Your task to perform on an android device: toggle location history Image 0: 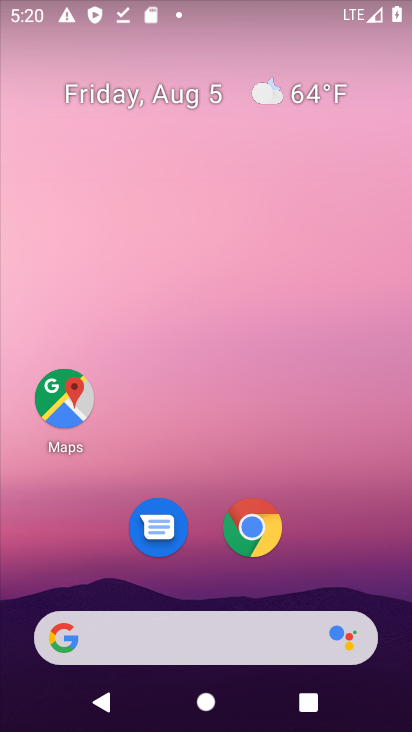
Step 0: click (203, 232)
Your task to perform on an android device: toggle location history Image 1: 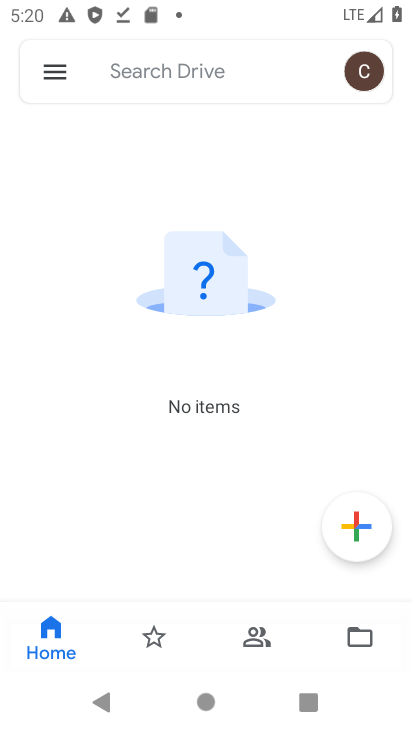
Step 1: press home button
Your task to perform on an android device: toggle location history Image 2: 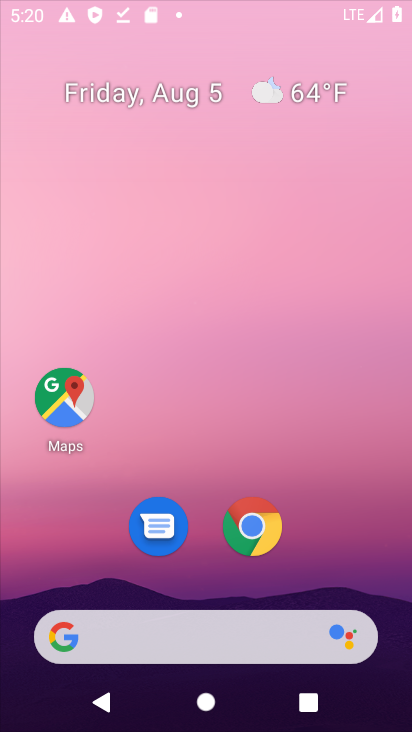
Step 2: drag from (200, 522) to (220, 202)
Your task to perform on an android device: toggle location history Image 3: 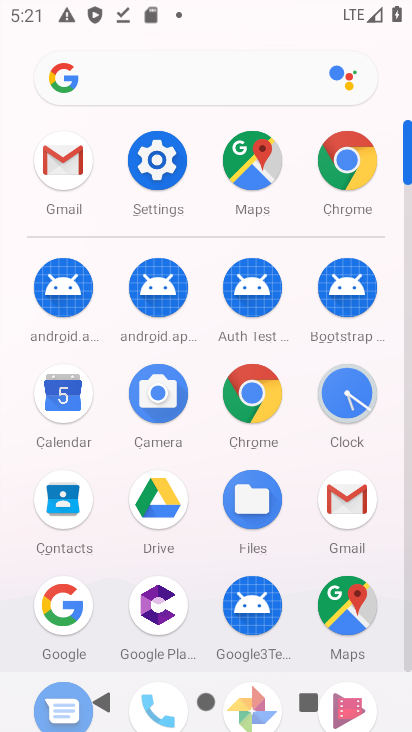
Step 3: click (158, 158)
Your task to perform on an android device: toggle location history Image 4: 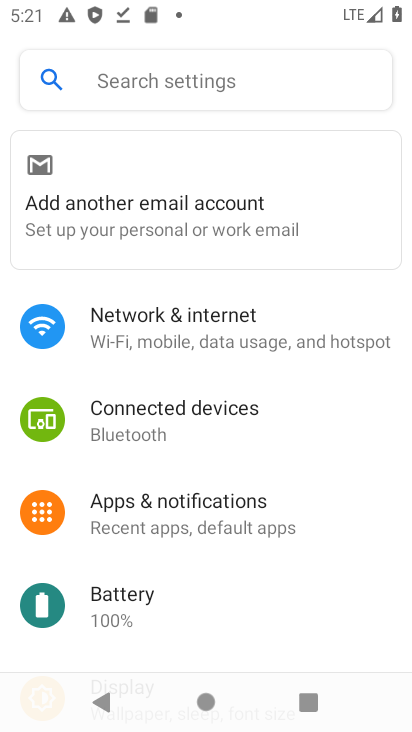
Step 4: drag from (232, 566) to (337, 284)
Your task to perform on an android device: toggle location history Image 5: 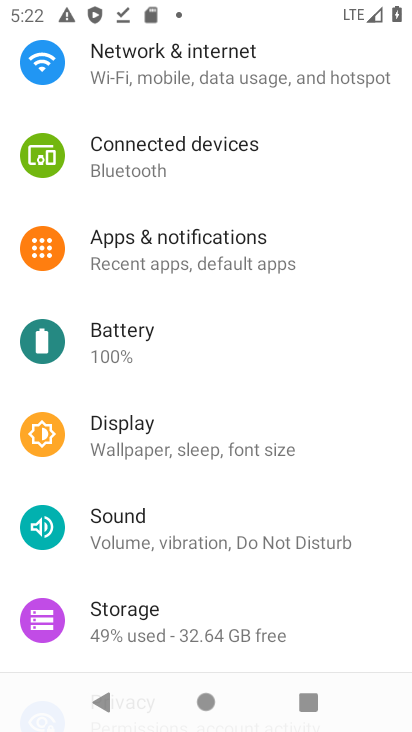
Step 5: drag from (174, 568) to (204, 331)
Your task to perform on an android device: toggle location history Image 6: 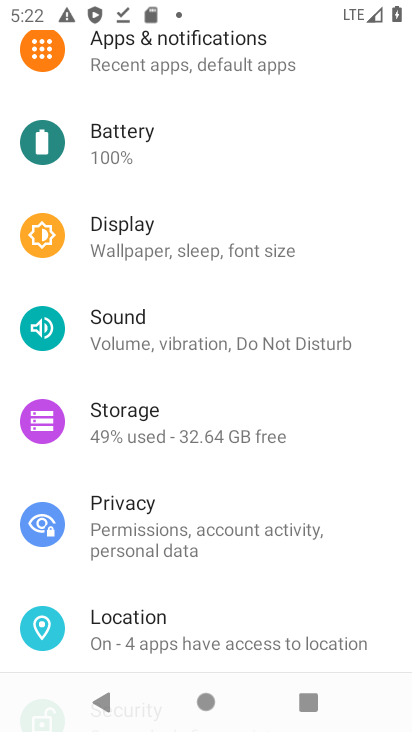
Step 6: click (132, 615)
Your task to perform on an android device: toggle location history Image 7: 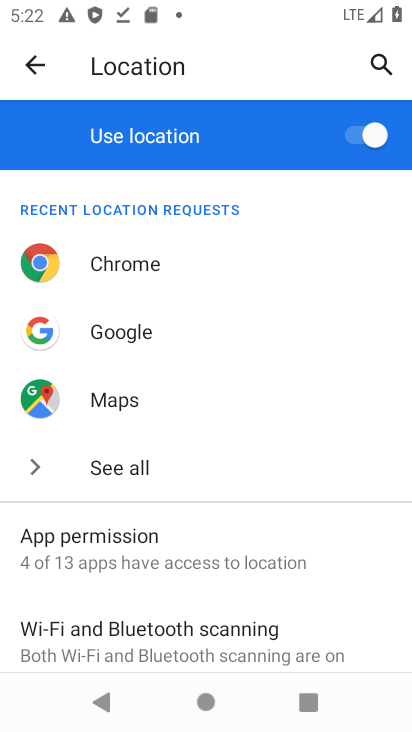
Step 7: drag from (179, 549) to (221, 386)
Your task to perform on an android device: toggle location history Image 8: 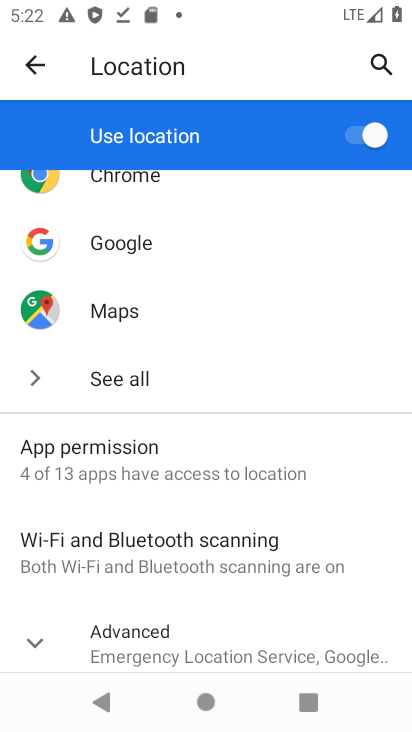
Step 8: click (132, 635)
Your task to perform on an android device: toggle location history Image 9: 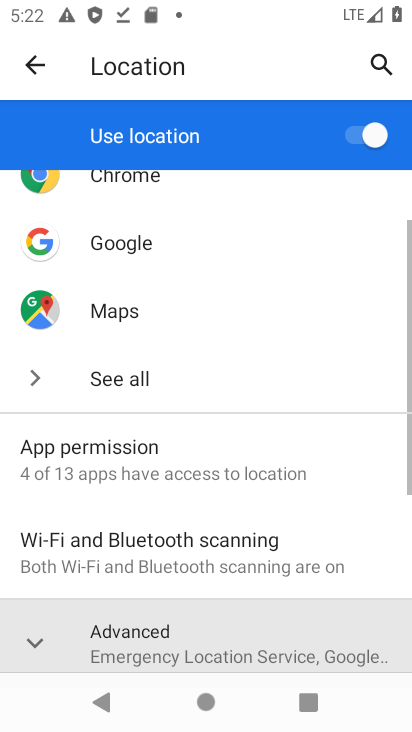
Step 9: drag from (127, 627) to (206, 382)
Your task to perform on an android device: toggle location history Image 10: 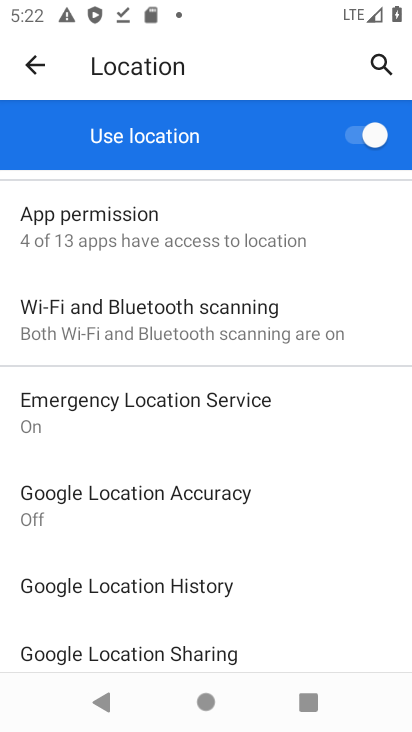
Step 10: drag from (164, 600) to (291, 315)
Your task to perform on an android device: toggle location history Image 11: 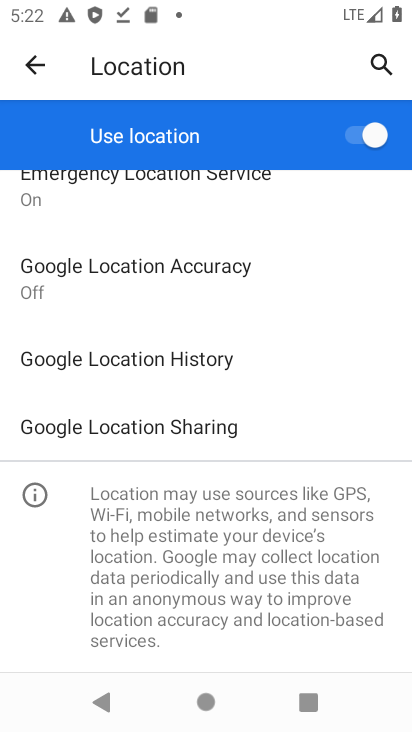
Step 11: click (162, 369)
Your task to perform on an android device: toggle location history Image 12: 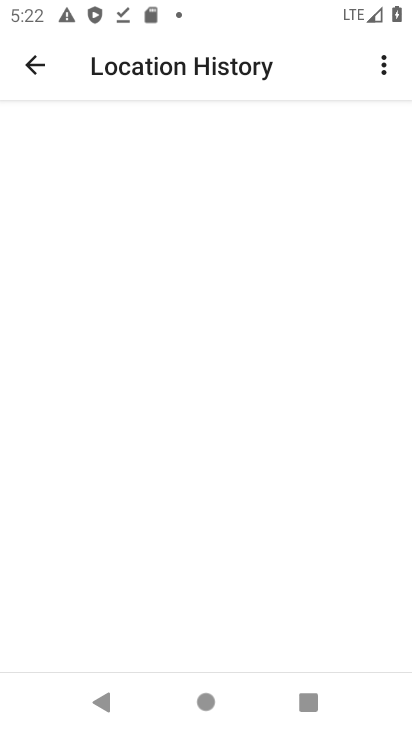
Step 12: drag from (177, 482) to (213, 245)
Your task to perform on an android device: toggle location history Image 13: 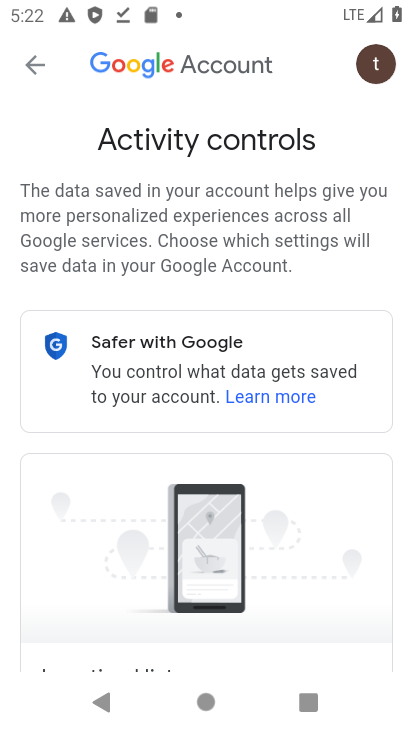
Step 13: drag from (156, 580) to (213, 293)
Your task to perform on an android device: toggle location history Image 14: 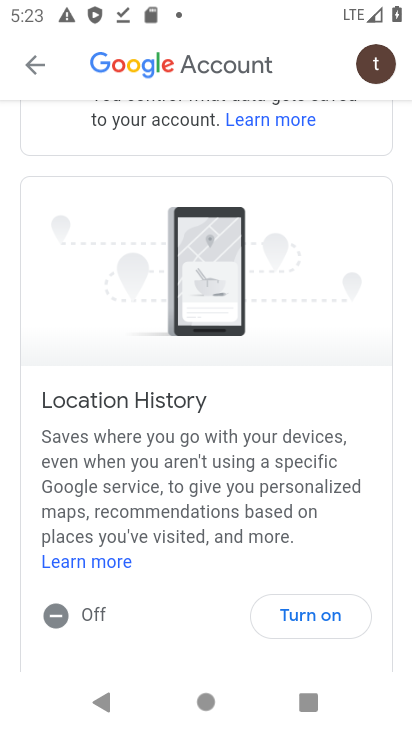
Step 14: drag from (168, 566) to (249, 92)
Your task to perform on an android device: toggle location history Image 15: 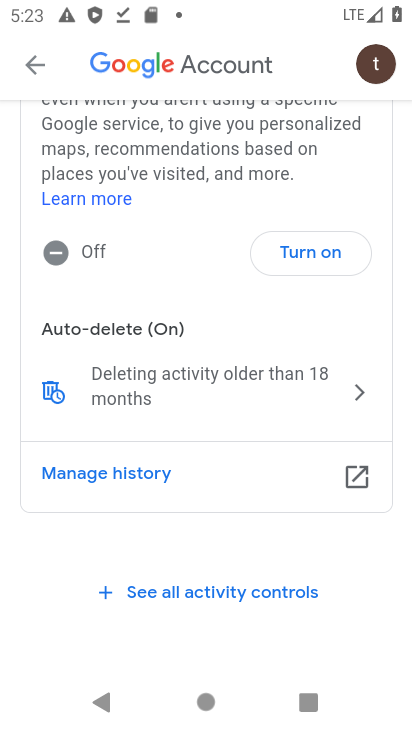
Step 15: drag from (232, 471) to (296, 287)
Your task to perform on an android device: toggle location history Image 16: 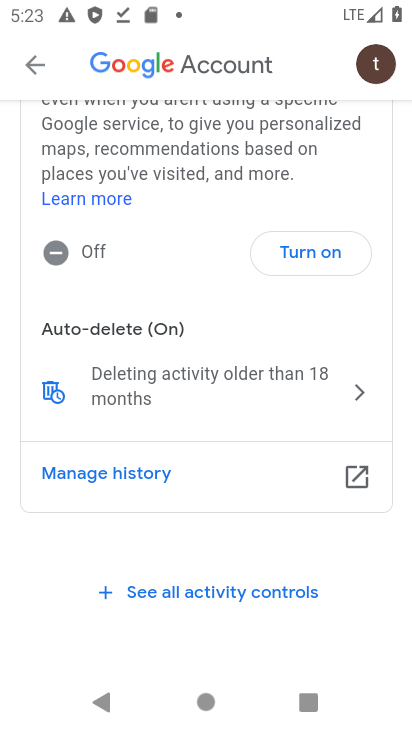
Step 16: drag from (173, 364) to (283, 629)
Your task to perform on an android device: toggle location history Image 17: 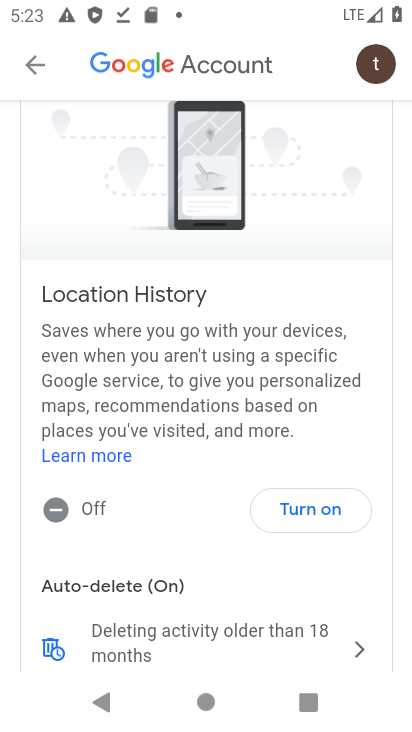
Step 17: click (296, 517)
Your task to perform on an android device: toggle location history Image 18: 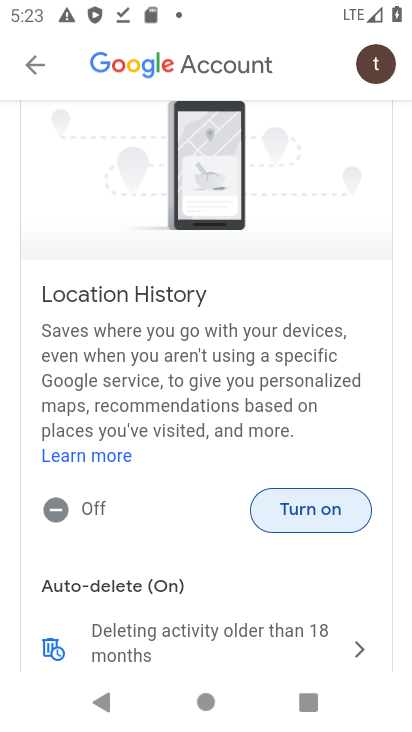
Step 18: click (287, 504)
Your task to perform on an android device: toggle location history Image 19: 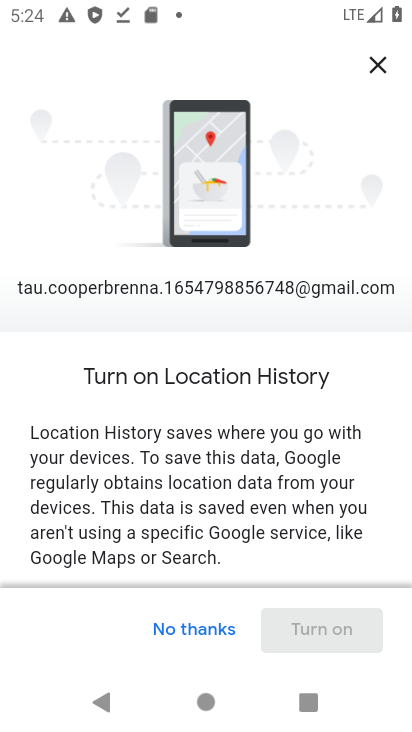
Step 19: drag from (267, 539) to (262, 306)
Your task to perform on an android device: toggle location history Image 20: 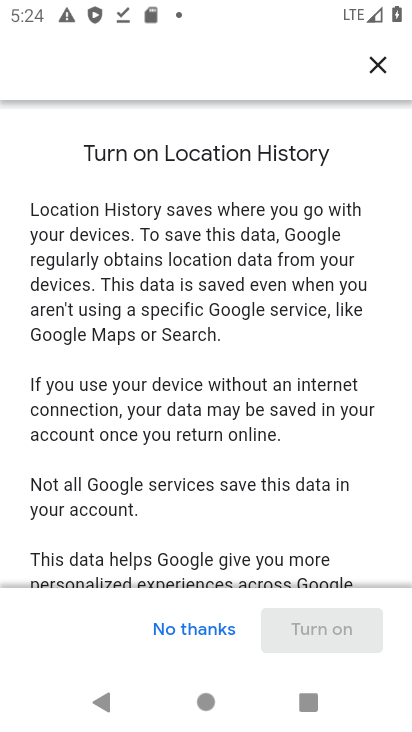
Step 20: drag from (196, 505) to (242, 326)
Your task to perform on an android device: toggle location history Image 21: 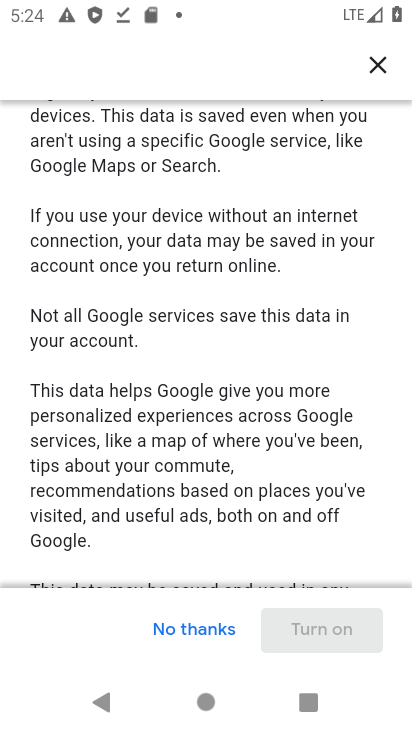
Step 21: drag from (189, 522) to (290, 150)
Your task to perform on an android device: toggle location history Image 22: 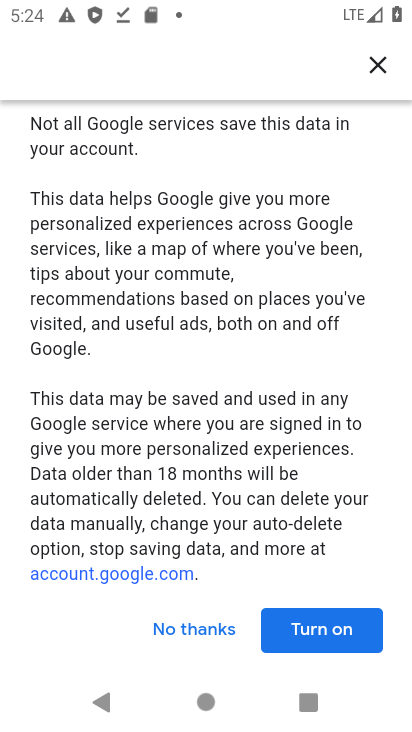
Step 22: drag from (160, 449) to (230, 224)
Your task to perform on an android device: toggle location history Image 23: 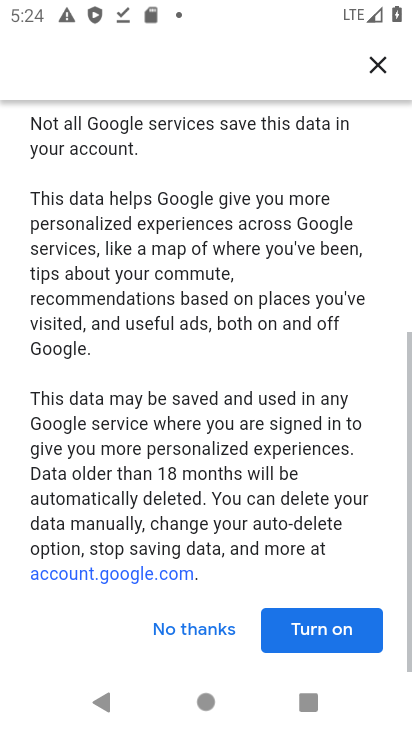
Step 23: click (318, 629)
Your task to perform on an android device: toggle location history Image 24: 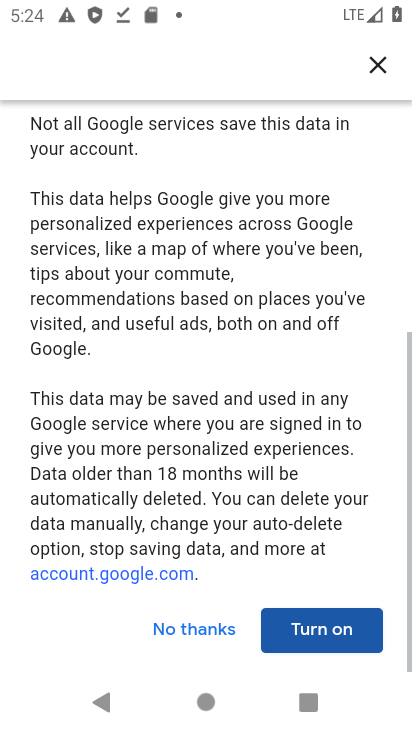
Step 24: click (328, 621)
Your task to perform on an android device: toggle location history Image 25: 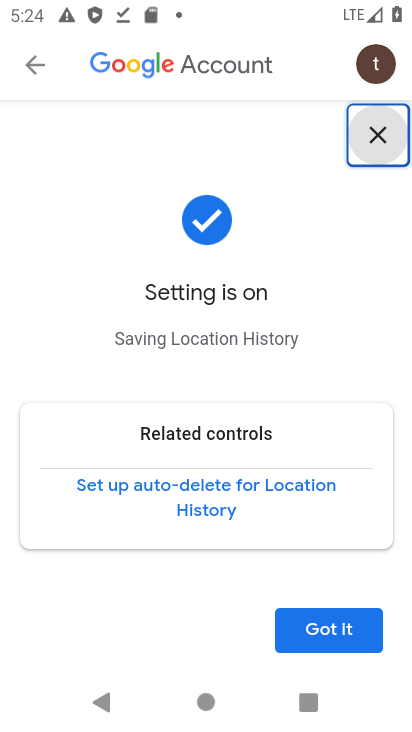
Step 25: click (338, 638)
Your task to perform on an android device: toggle location history Image 26: 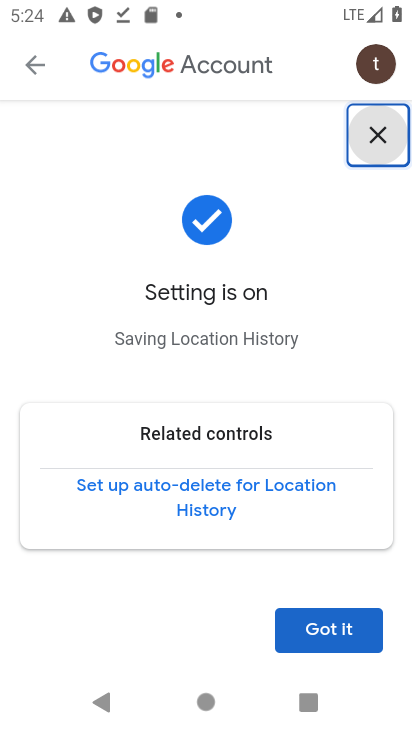
Step 26: task complete